Your task to perform on an android device: install app "PlayWell" Image 0: 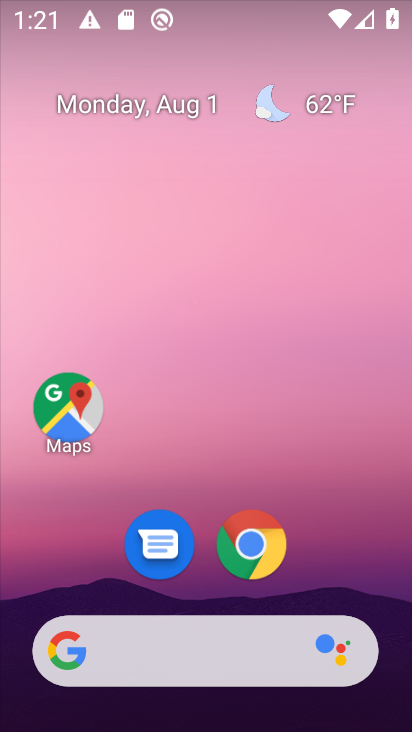
Step 0: drag from (392, 622) to (228, 22)
Your task to perform on an android device: install app "PlayWell" Image 1: 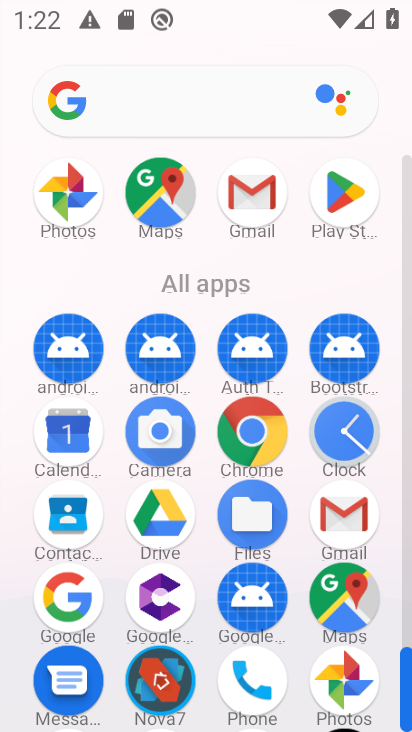
Step 1: click (336, 185)
Your task to perform on an android device: install app "PlayWell" Image 2: 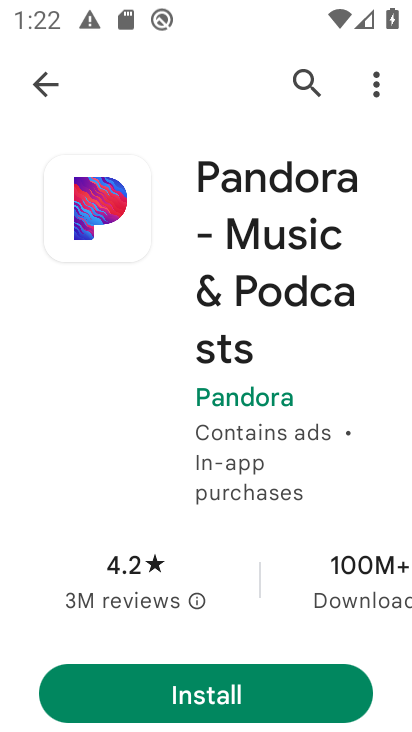
Step 2: press back button
Your task to perform on an android device: install app "PlayWell" Image 3: 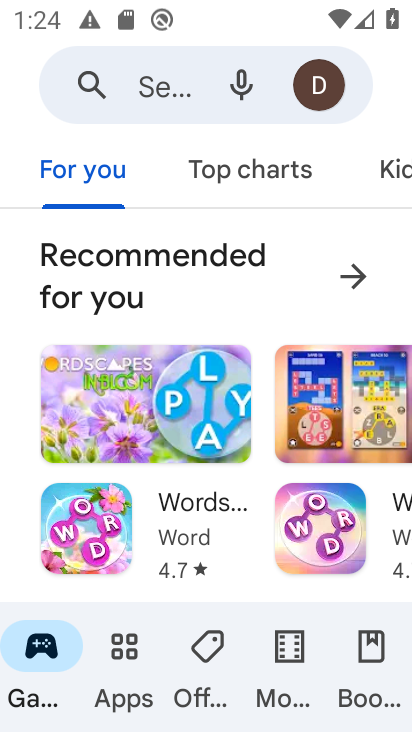
Step 3: click (146, 66)
Your task to perform on an android device: install app "PlayWell" Image 4: 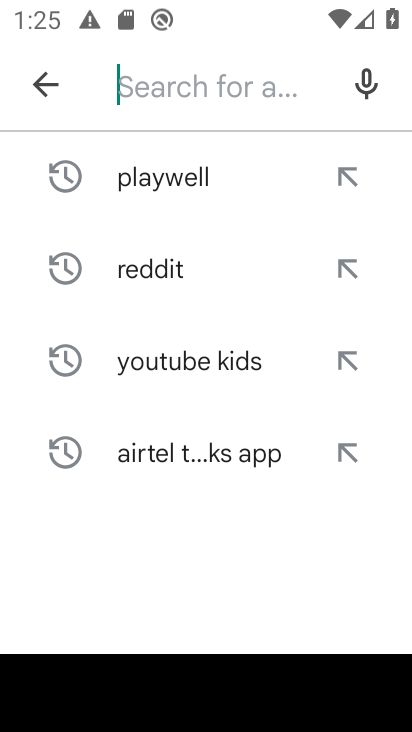
Step 4: type "PlayWell"
Your task to perform on an android device: install app "PlayWell" Image 5: 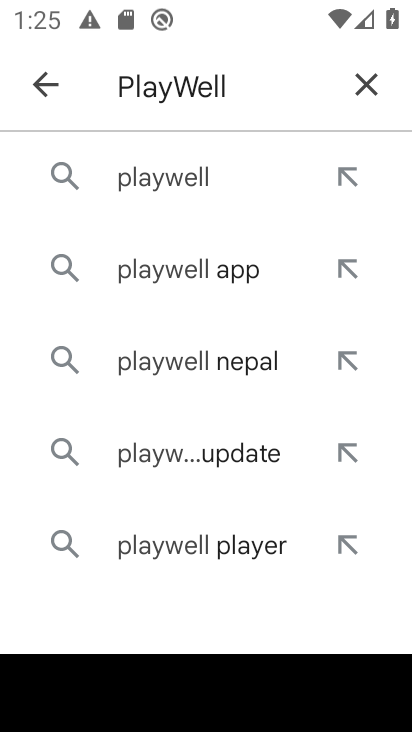
Step 5: click (171, 183)
Your task to perform on an android device: install app "PlayWell" Image 6: 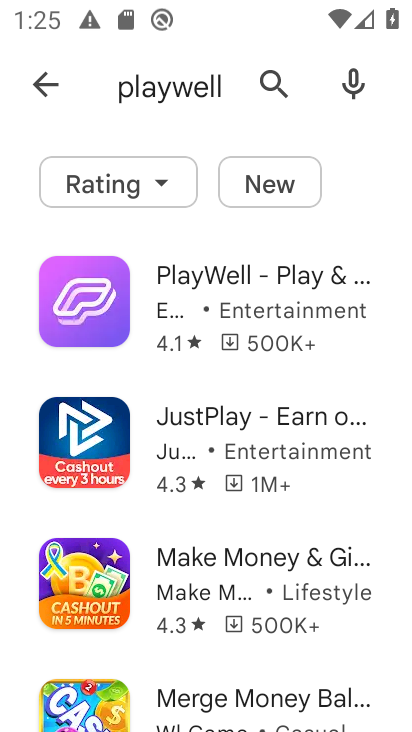
Step 6: task complete